Your task to perform on an android device: Open wifi settings Image 0: 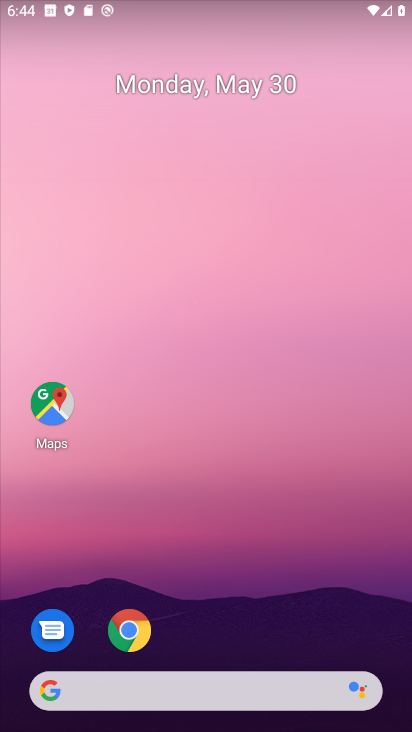
Step 0: drag from (361, 640) to (297, 20)
Your task to perform on an android device: Open wifi settings Image 1: 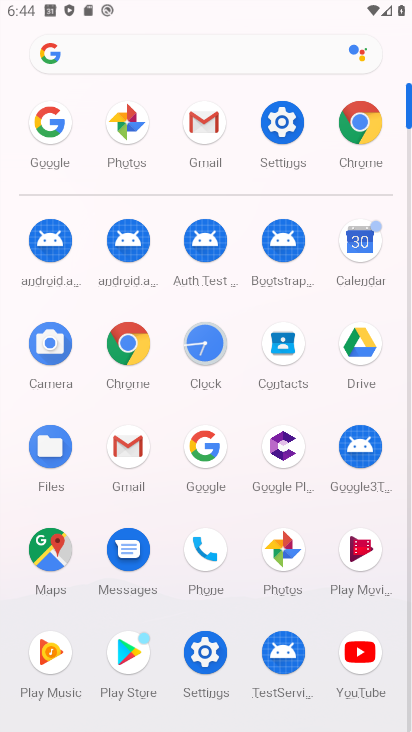
Step 1: click (297, 135)
Your task to perform on an android device: Open wifi settings Image 2: 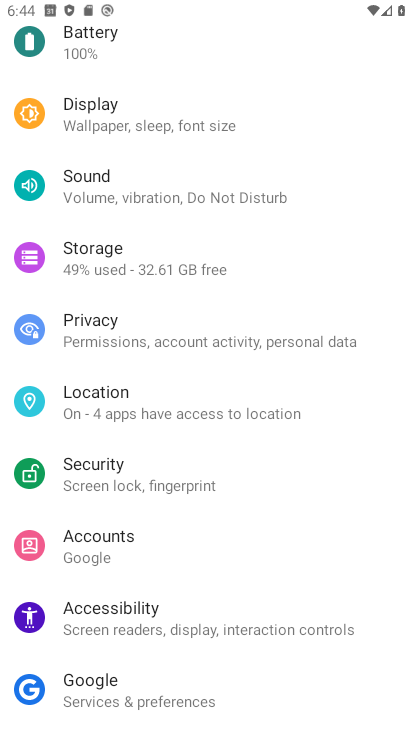
Step 2: drag from (193, 109) to (202, 622)
Your task to perform on an android device: Open wifi settings Image 3: 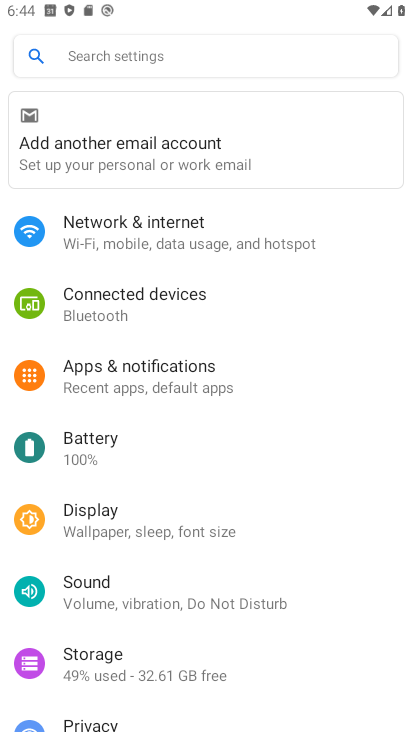
Step 3: click (128, 251)
Your task to perform on an android device: Open wifi settings Image 4: 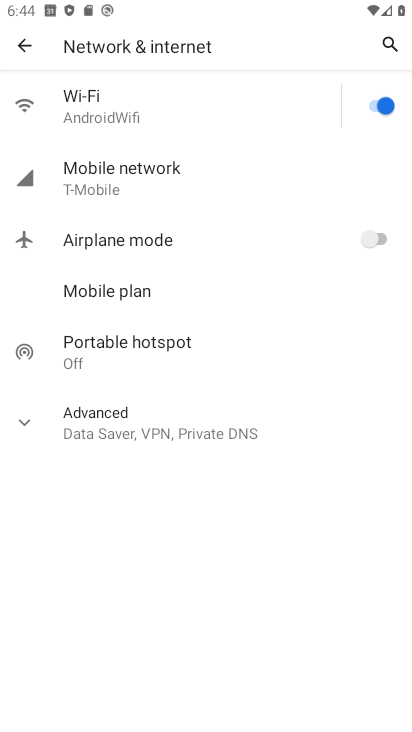
Step 4: click (158, 110)
Your task to perform on an android device: Open wifi settings Image 5: 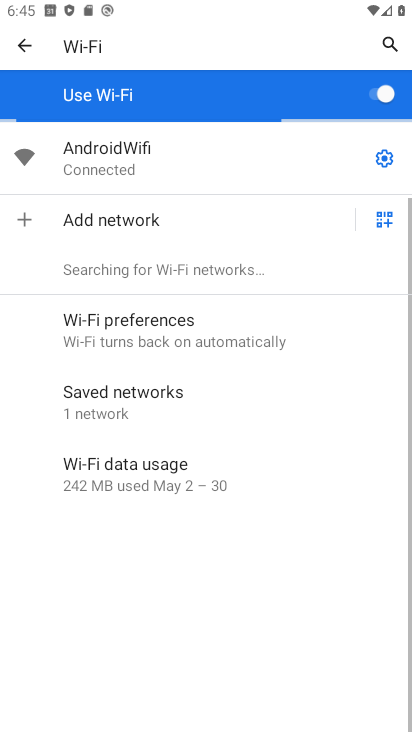
Step 5: task complete